Your task to perform on an android device: all mails in gmail Image 0: 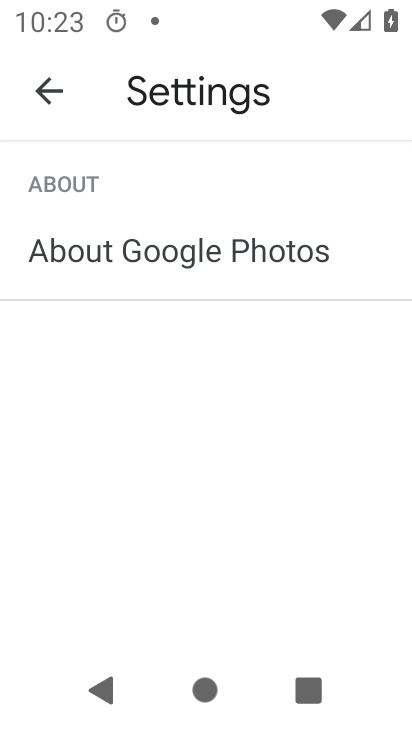
Step 0: press back button
Your task to perform on an android device: all mails in gmail Image 1: 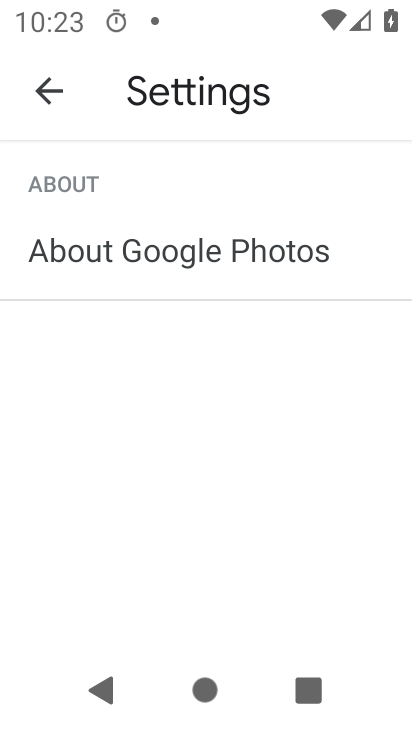
Step 1: press home button
Your task to perform on an android device: all mails in gmail Image 2: 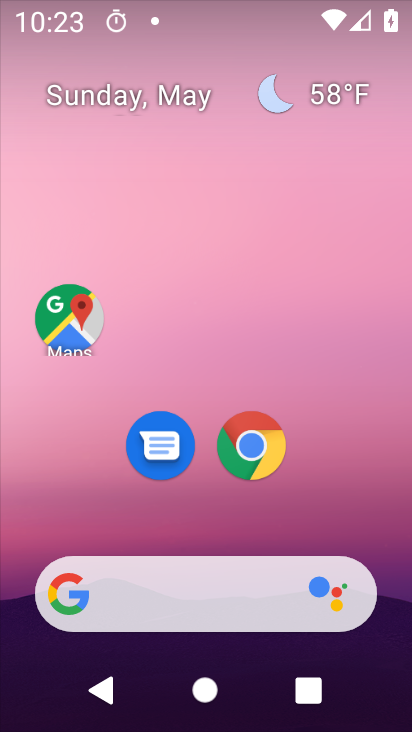
Step 2: drag from (379, 603) to (315, 29)
Your task to perform on an android device: all mails in gmail Image 3: 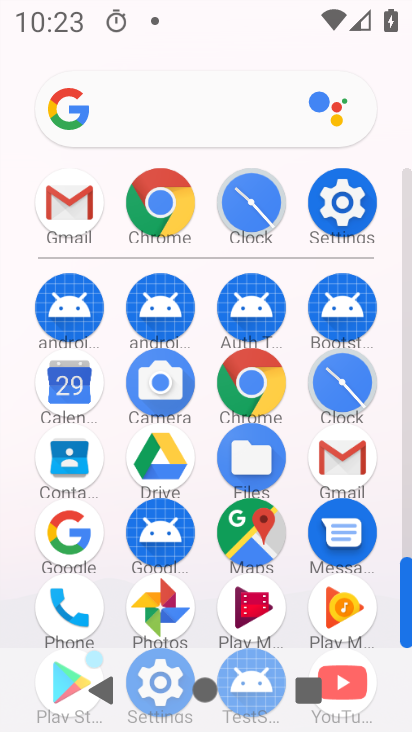
Step 3: click (345, 453)
Your task to perform on an android device: all mails in gmail Image 4: 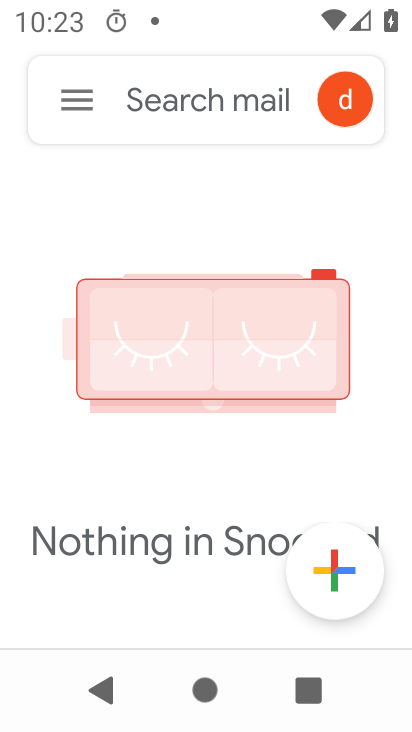
Step 4: click (69, 72)
Your task to perform on an android device: all mails in gmail Image 5: 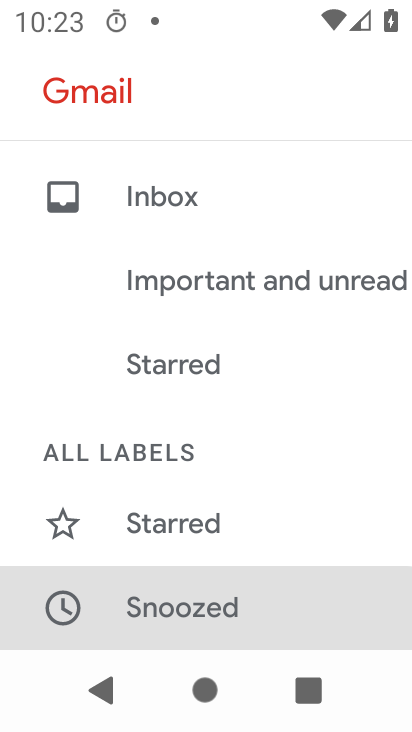
Step 5: drag from (313, 552) to (283, 199)
Your task to perform on an android device: all mails in gmail Image 6: 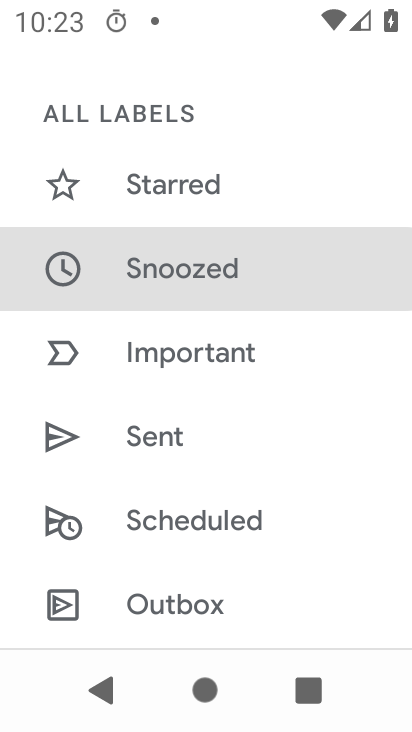
Step 6: drag from (263, 532) to (257, 157)
Your task to perform on an android device: all mails in gmail Image 7: 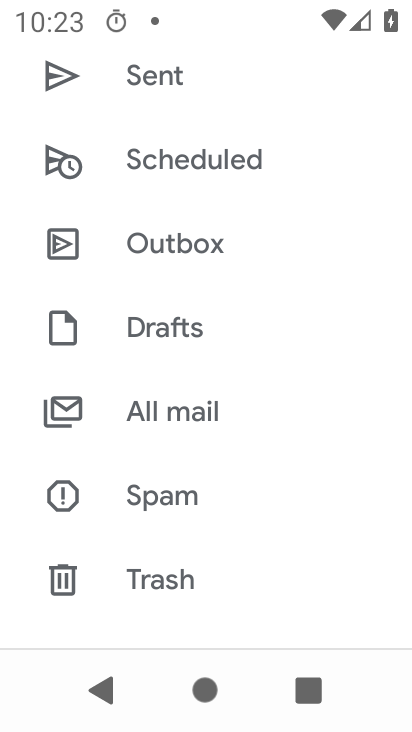
Step 7: click (205, 417)
Your task to perform on an android device: all mails in gmail Image 8: 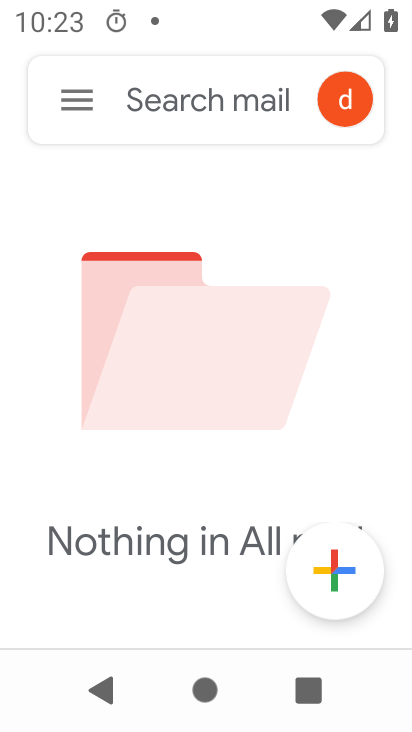
Step 8: drag from (145, 622) to (188, 217)
Your task to perform on an android device: all mails in gmail Image 9: 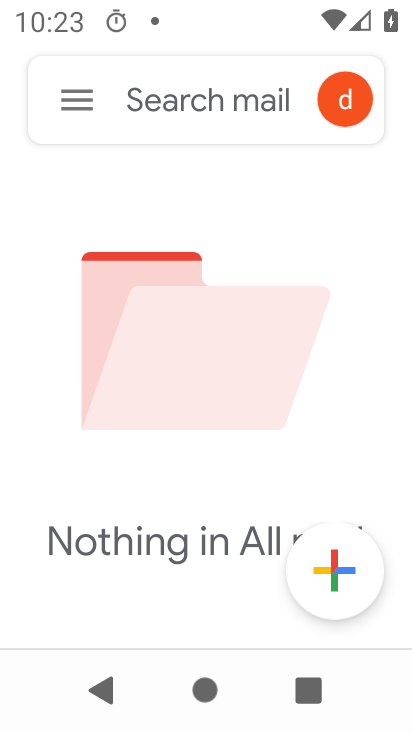
Step 9: drag from (195, 489) to (188, 212)
Your task to perform on an android device: all mails in gmail Image 10: 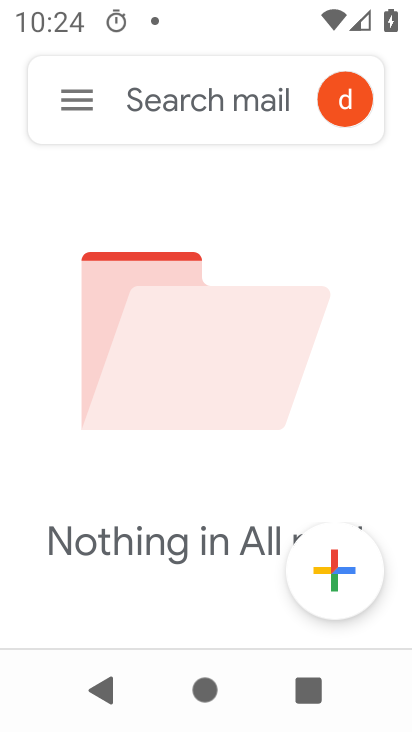
Step 10: click (86, 103)
Your task to perform on an android device: all mails in gmail Image 11: 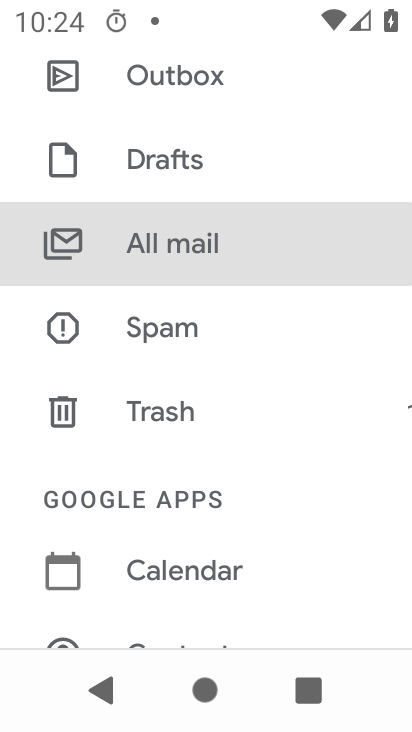
Step 11: click (129, 249)
Your task to perform on an android device: all mails in gmail Image 12: 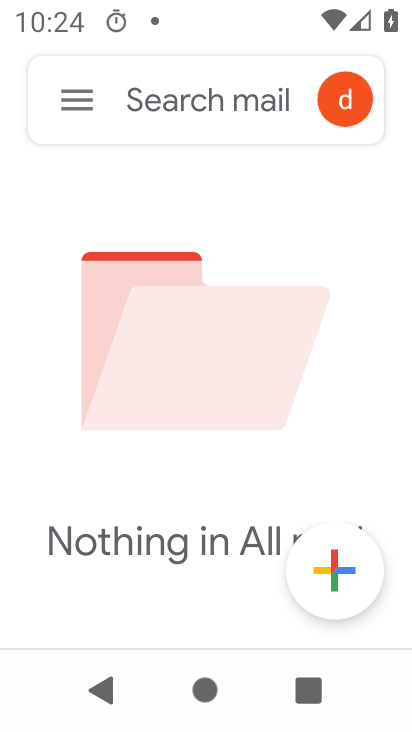
Step 12: task complete